Your task to perform on an android device: uninstall "Upside-Cash back on gas & food" Image 0: 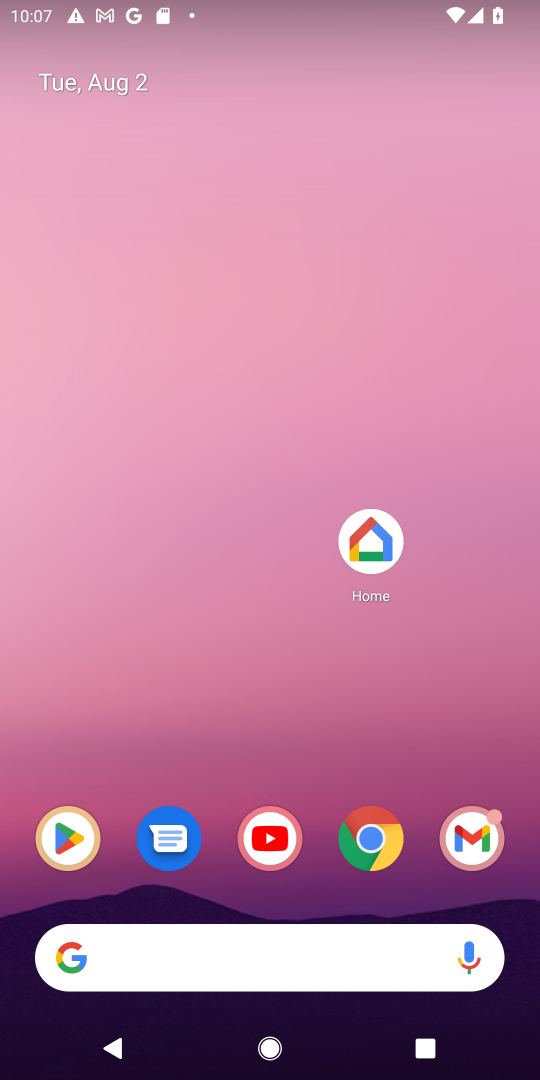
Step 0: drag from (206, 733) to (225, 137)
Your task to perform on an android device: uninstall "Upside-Cash back on gas & food" Image 1: 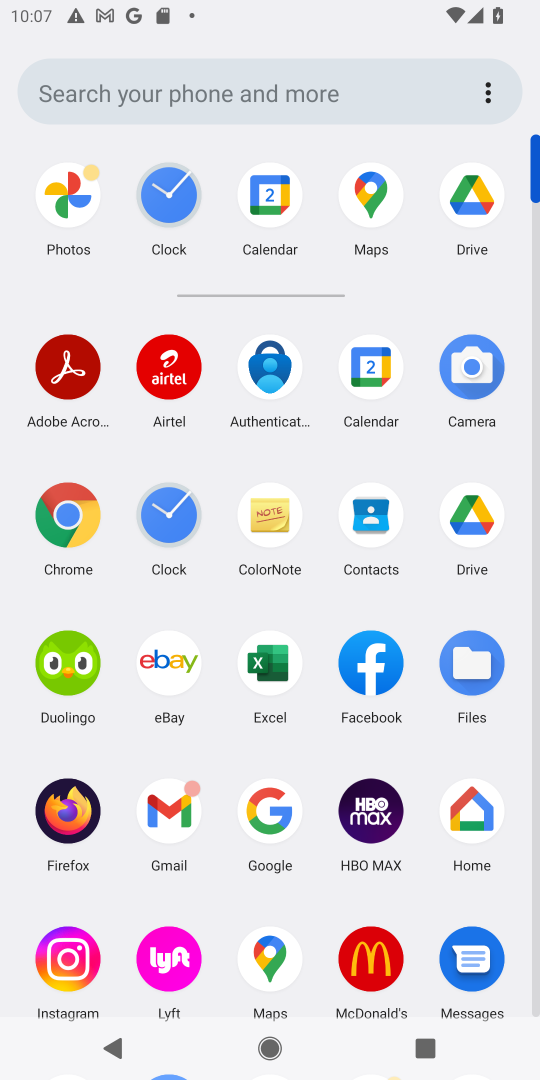
Step 1: drag from (314, 821) to (319, 552)
Your task to perform on an android device: uninstall "Upside-Cash back on gas & food" Image 2: 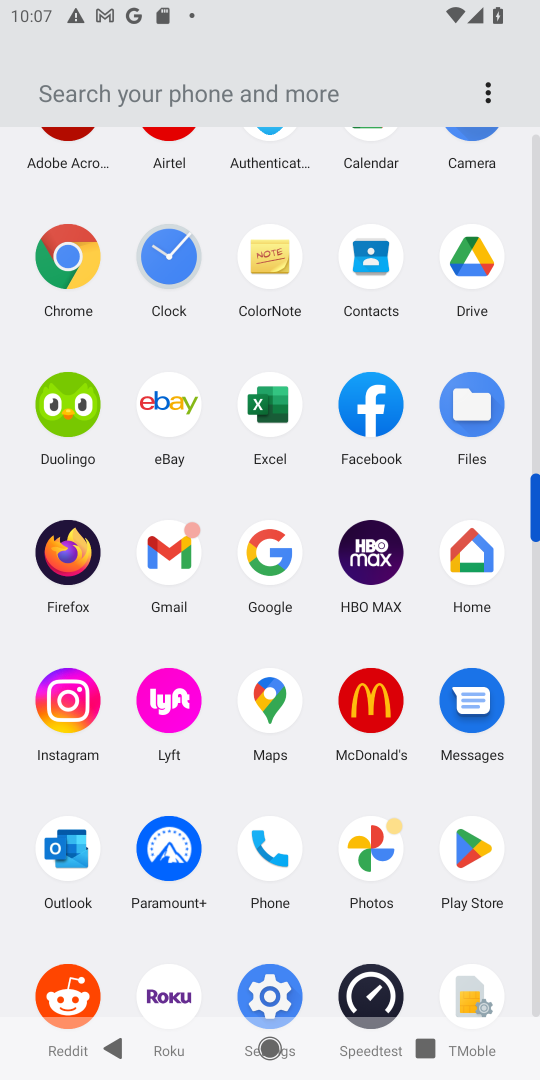
Step 2: click (487, 847)
Your task to perform on an android device: uninstall "Upside-Cash back on gas & food" Image 3: 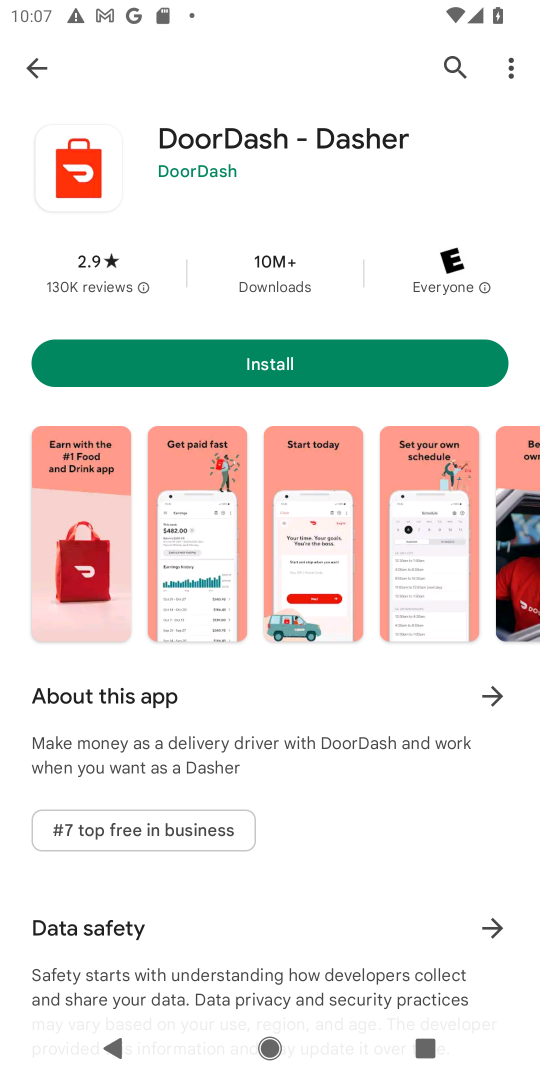
Step 3: click (447, 66)
Your task to perform on an android device: uninstall "Upside-Cash back on gas & food" Image 4: 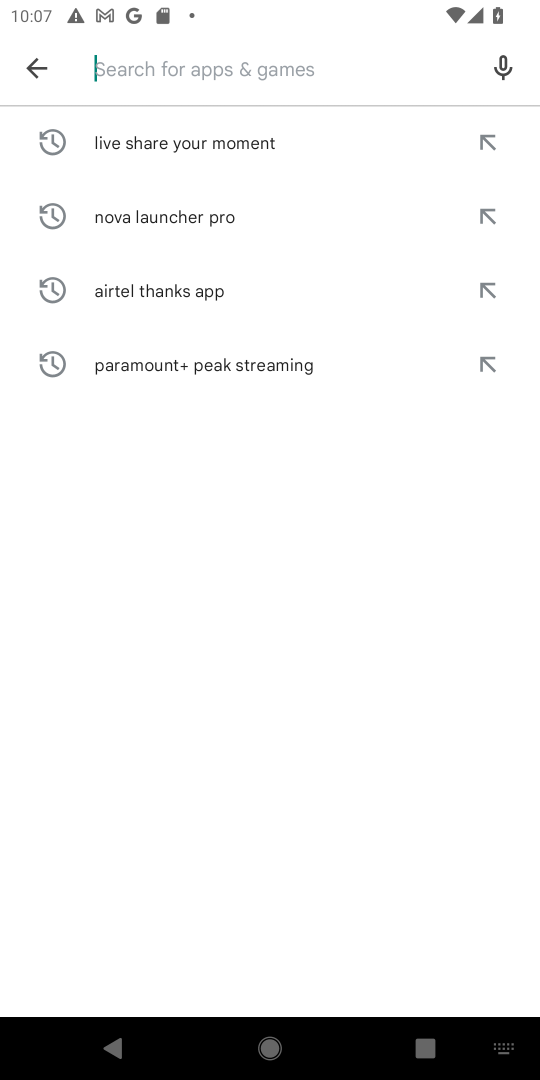
Step 4: click (387, 83)
Your task to perform on an android device: uninstall "Upside-Cash back on gas & food" Image 5: 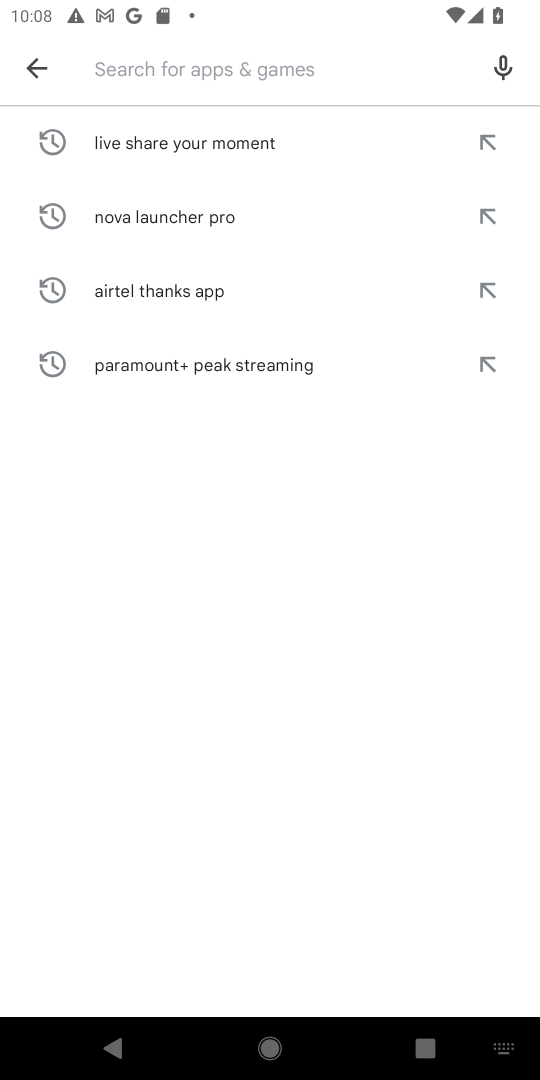
Step 5: type "Upside-Cash back on gas & food"
Your task to perform on an android device: uninstall "Upside-Cash back on gas & food" Image 6: 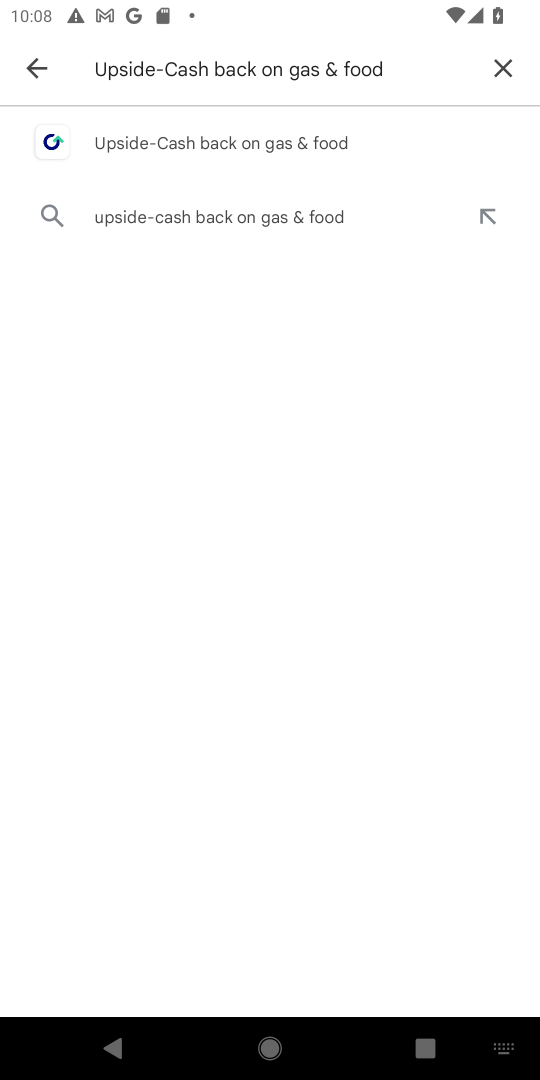
Step 6: click (320, 138)
Your task to perform on an android device: uninstall "Upside-Cash back on gas & food" Image 7: 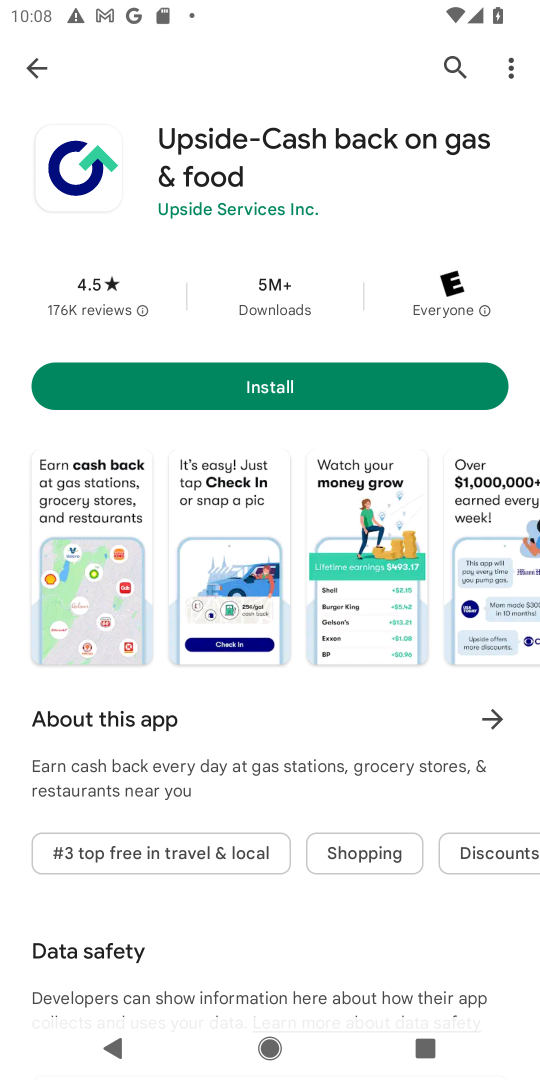
Step 7: task complete